Your task to perform on an android device: What's on my calendar today? Image 0: 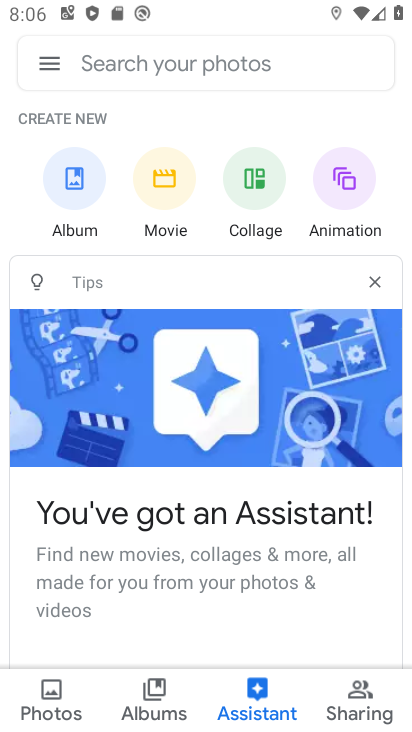
Step 0: press home button
Your task to perform on an android device: What's on my calendar today? Image 1: 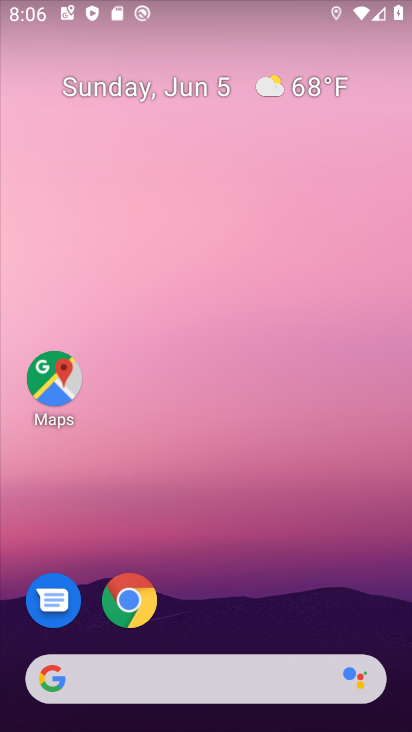
Step 1: drag from (213, 600) to (215, 34)
Your task to perform on an android device: What's on my calendar today? Image 2: 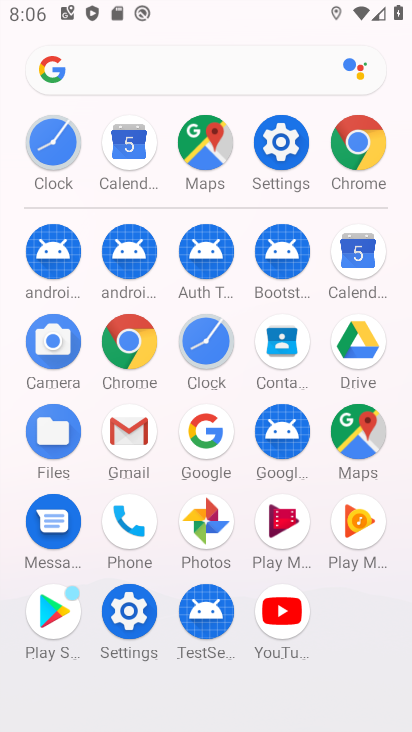
Step 2: click (133, 143)
Your task to perform on an android device: What's on my calendar today? Image 3: 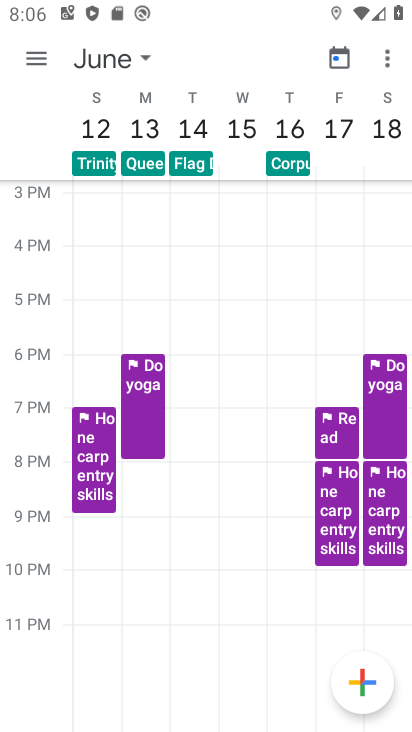
Step 3: drag from (80, 250) to (389, 268)
Your task to perform on an android device: What's on my calendar today? Image 4: 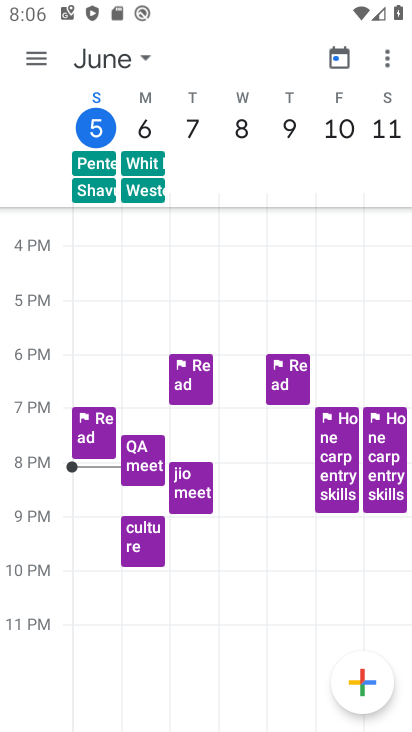
Step 4: click (102, 122)
Your task to perform on an android device: What's on my calendar today? Image 5: 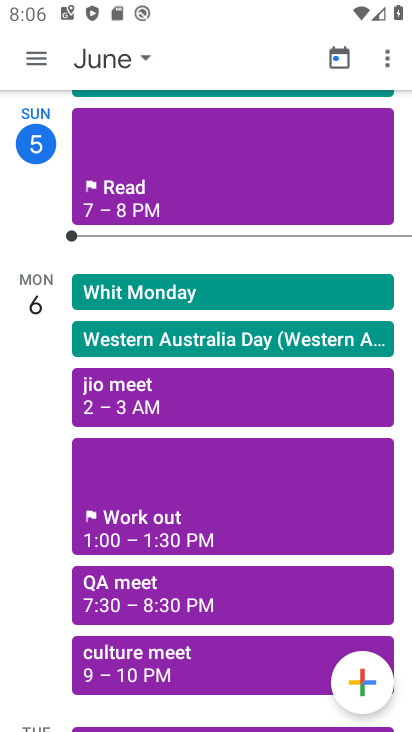
Step 5: task complete